Your task to perform on an android device: create a new album in the google photos Image 0: 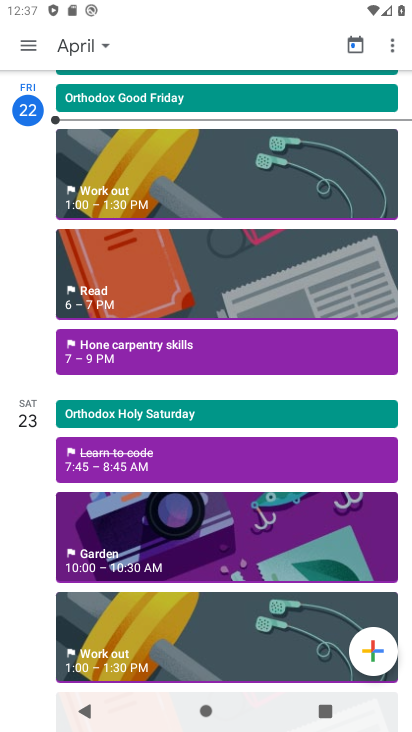
Step 0: press back button
Your task to perform on an android device: create a new album in the google photos Image 1: 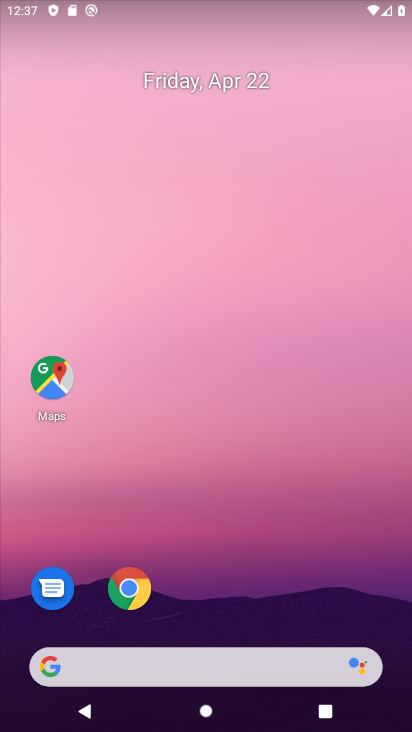
Step 1: drag from (206, 502) to (264, 124)
Your task to perform on an android device: create a new album in the google photos Image 2: 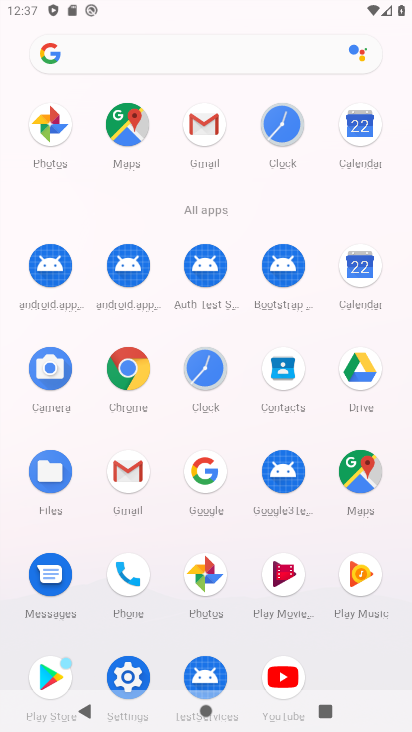
Step 2: click (209, 581)
Your task to perform on an android device: create a new album in the google photos Image 3: 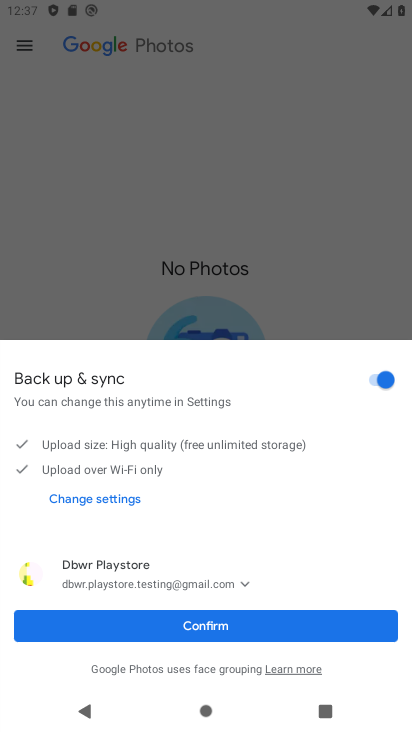
Step 3: click (235, 625)
Your task to perform on an android device: create a new album in the google photos Image 4: 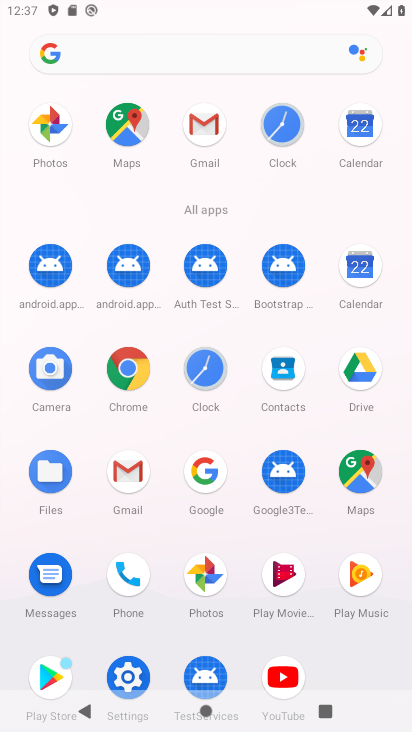
Step 4: click (53, 130)
Your task to perform on an android device: create a new album in the google photos Image 5: 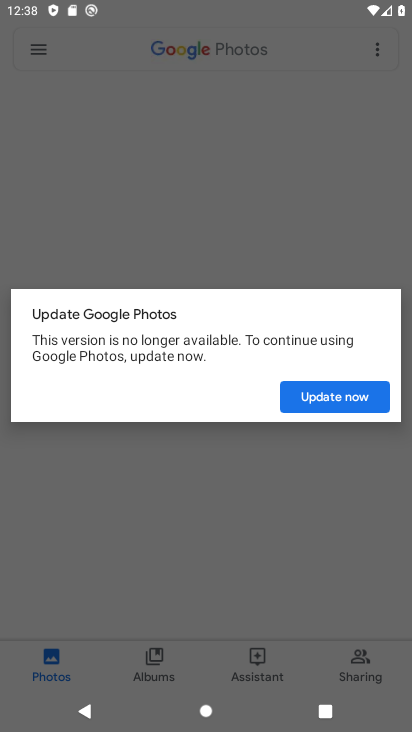
Step 5: click (332, 400)
Your task to perform on an android device: create a new album in the google photos Image 6: 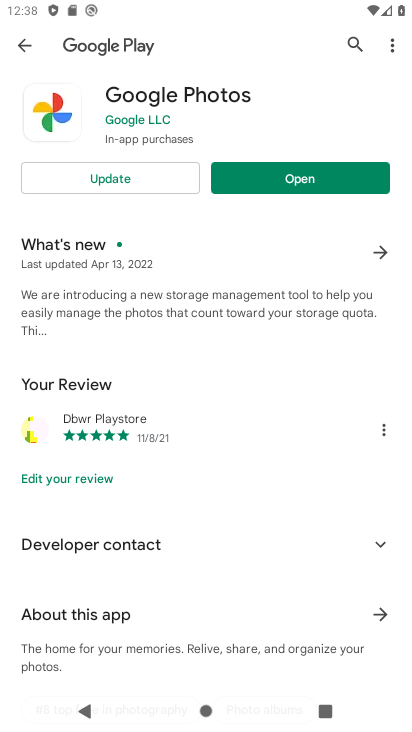
Step 6: click (274, 175)
Your task to perform on an android device: create a new album in the google photos Image 7: 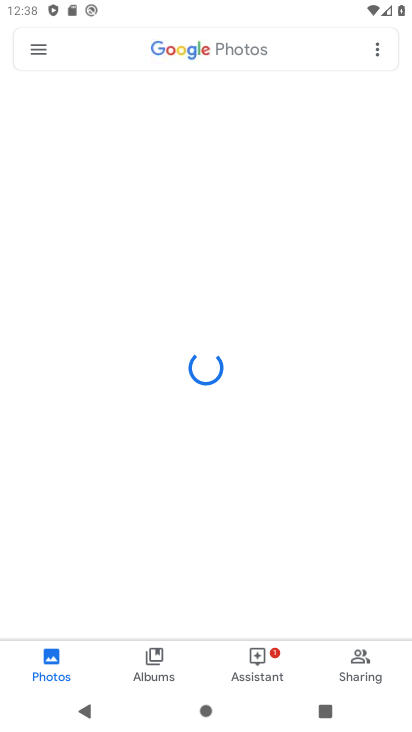
Step 7: click (162, 666)
Your task to perform on an android device: create a new album in the google photos Image 8: 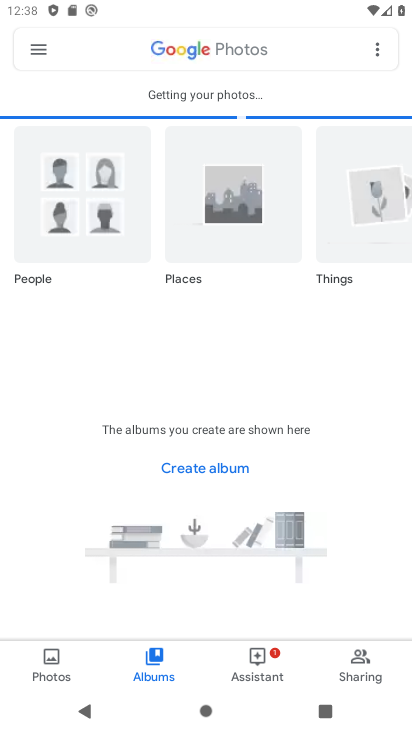
Step 8: click (180, 467)
Your task to perform on an android device: create a new album in the google photos Image 9: 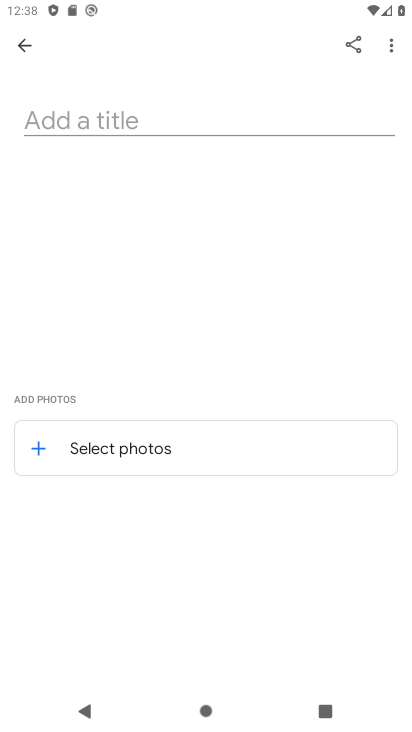
Step 9: click (94, 123)
Your task to perform on an android device: create a new album in the google photos Image 10: 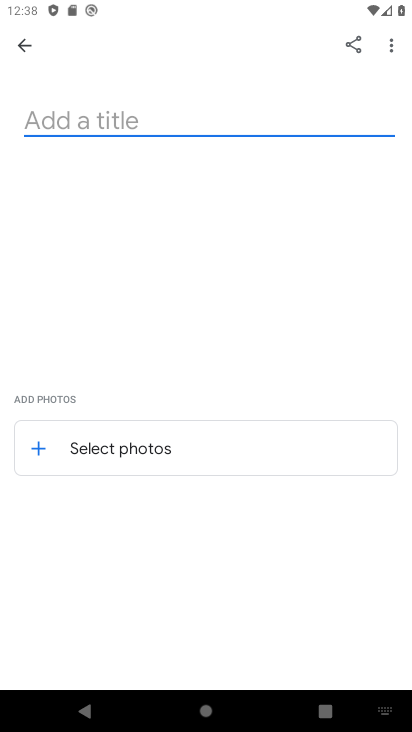
Step 10: type "vfvfv"
Your task to perform on an android device: create a new album in the google photos Image 11: 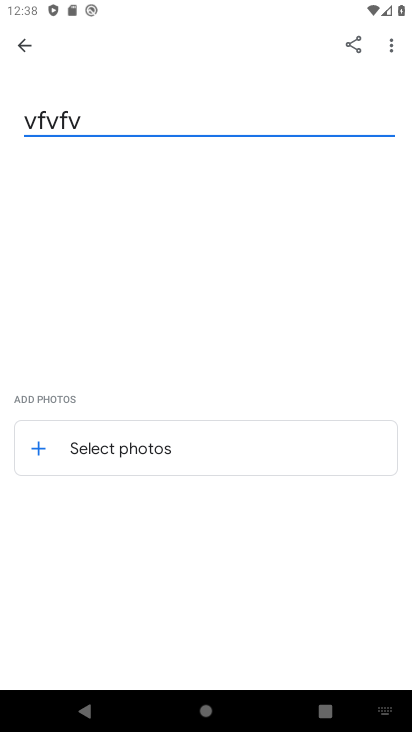
Step 11: click (135, 452)
Your task to perform on an android device: create a new album in the google photos Image 12: 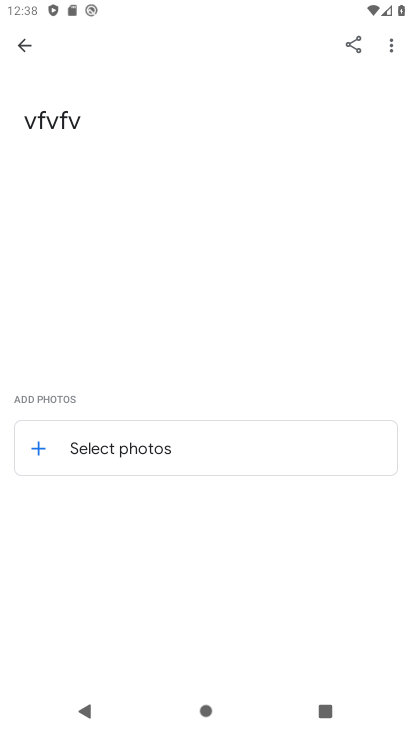
Step 12: click (93, 439)
Your task to perform on an android device: create a new album in the google photos Image 13: 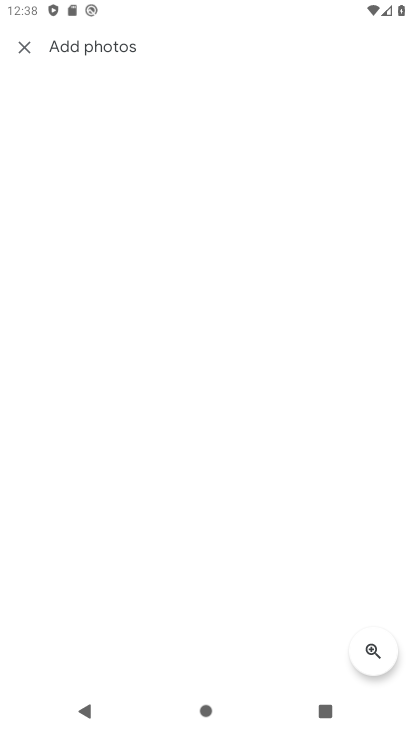
Step 13: drag from (209, 309) to (307, 73)
Your task to perform on an android device: create a new album in the google photos Image 14: 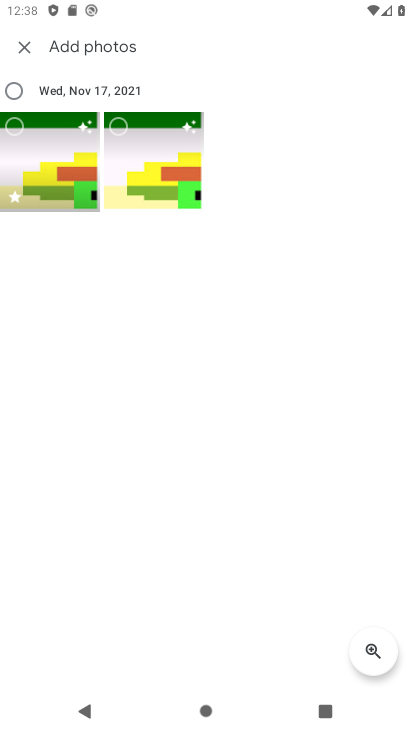
Step 14: click (21, 86)
Your task to perform on an android device: create a new album in the google photos Image 15: 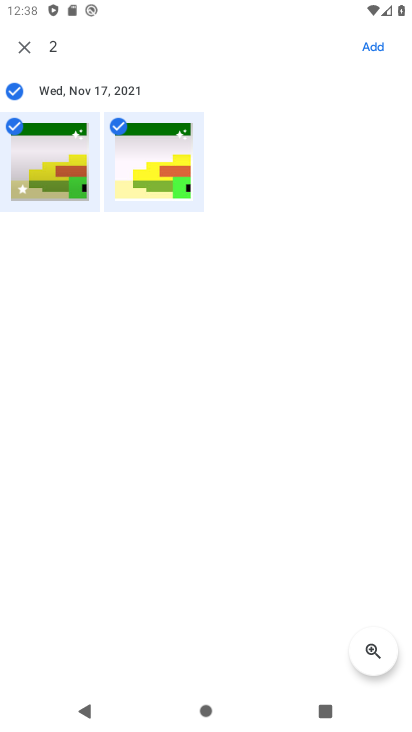
Step 15: click (356, 39)
Your task to perform on an android device: create a new album in the google photos Image 16: 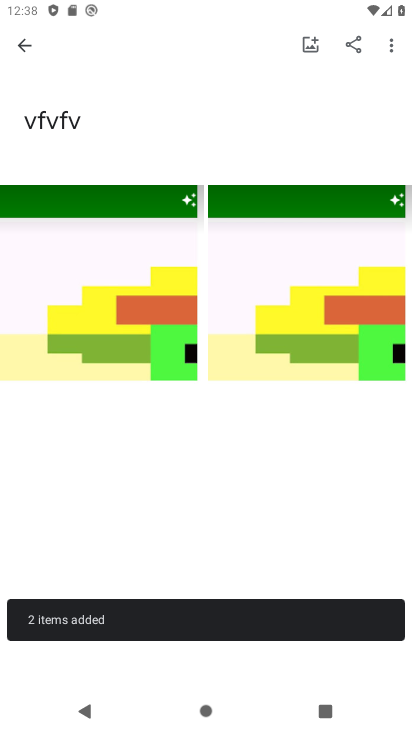
Step 16: task complete